Your task to perform on an android device: move a message to another label in the gmail app Image 0: 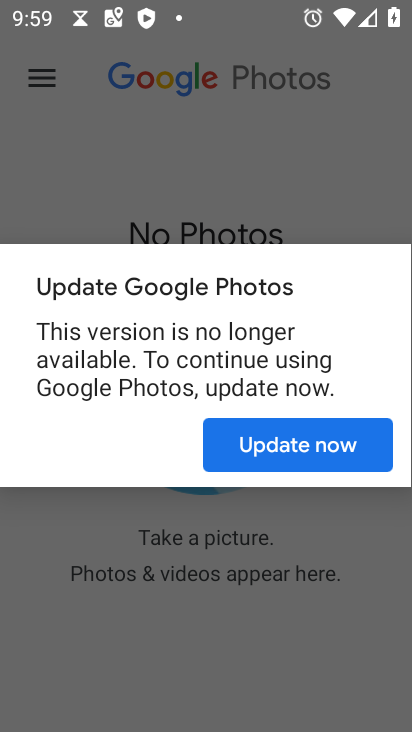
Step 0: press back button
Your task to perform on an android device: move a message to another label in the gmail app Image 1: 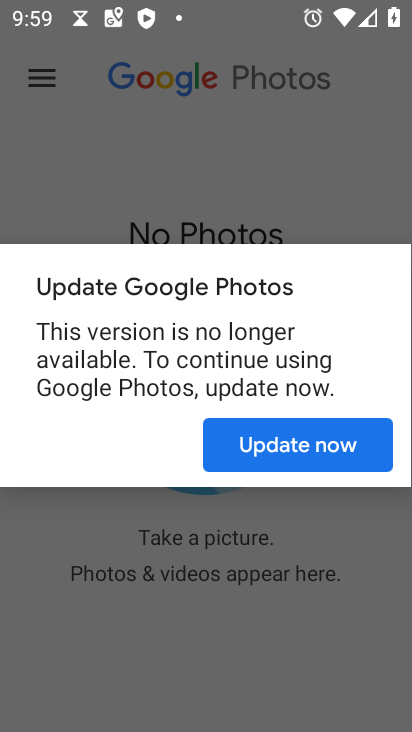
Step 1: press home button
Your task to perform on an android device: move a message to another label in the gmail app Image 2: 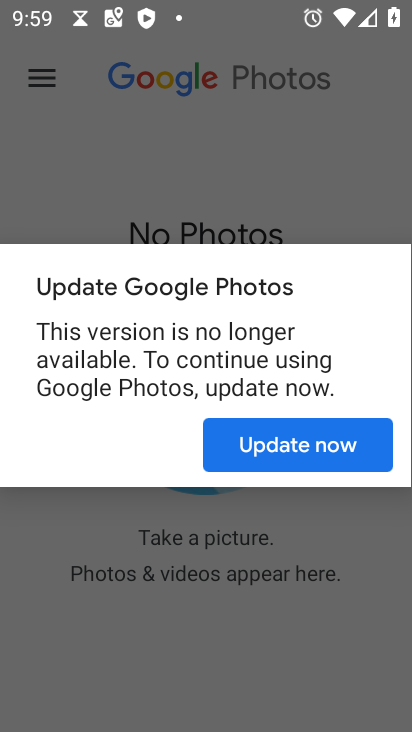
Step 2: press home button
Your task to perform on an android device: move a message to another label in the gmail app Image 3: 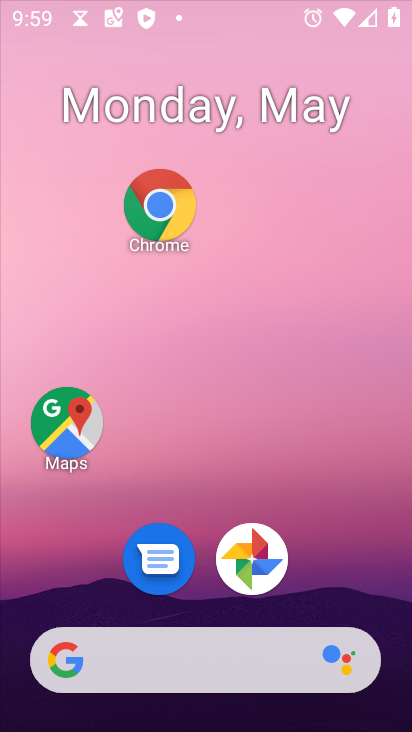
Step 3: click (88, 141)
Your task to perform on an android device: move a message to another label in the gmail app Image 4: 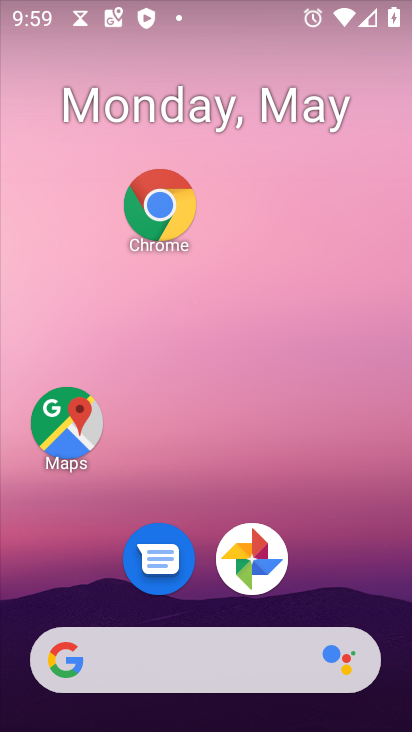
Step 4: click (88, 141)
Your task to perform on an android device: move a message to another label in the gmail app Image 5: 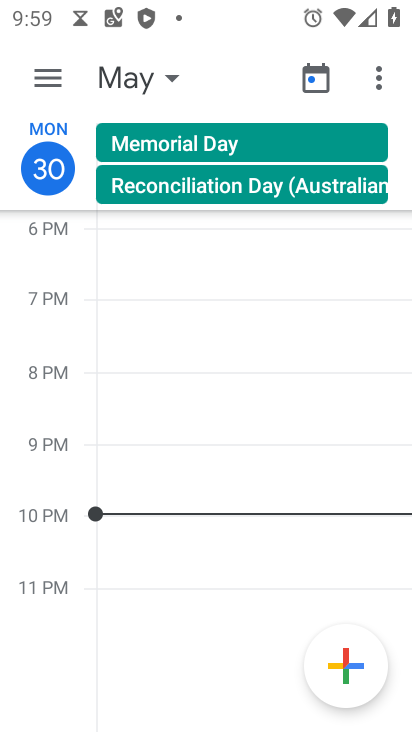
Step 5: drag from (260, 676) to (243, 60)
Your task to perform on an android device: move a message to another label in the gmail app Image 6: 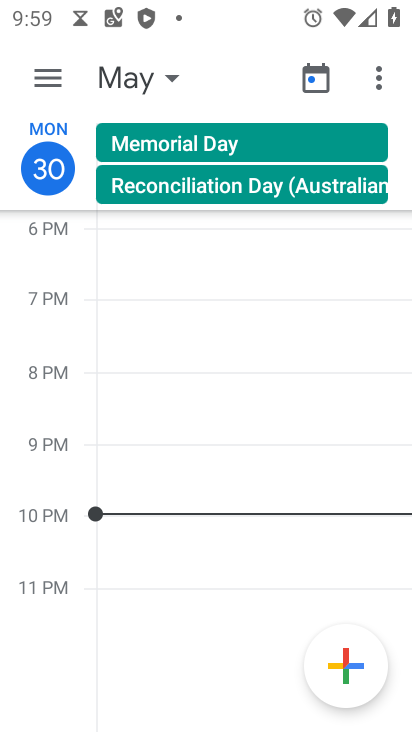
Step 6: press back button
Your task to perform on an android device: move a message to another label in the gmail app Image 7: 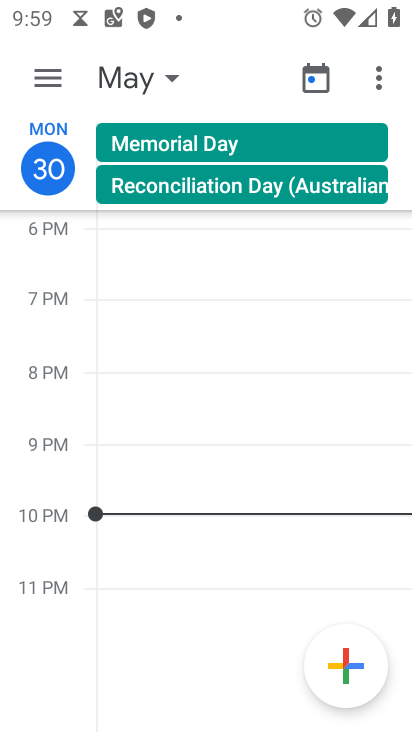
Step 7: press back button
Your task to perform on an android device: move a message to another label in the gmail app Image 8: 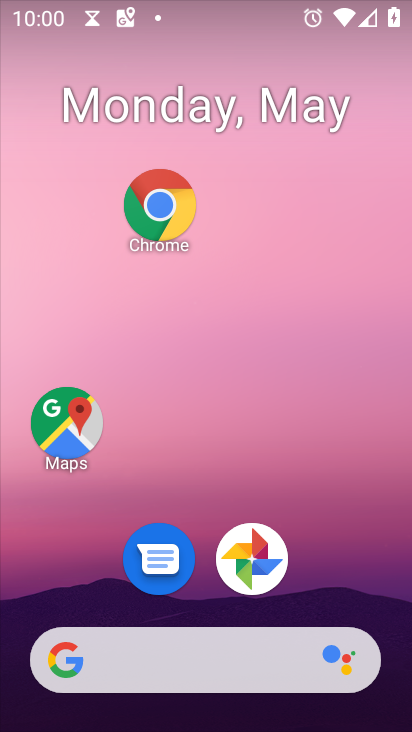
Step 8: drag from (285, 669) to (406, 686)
Your task to perform on an android device: move a message to another label in the gmail app Image 9: 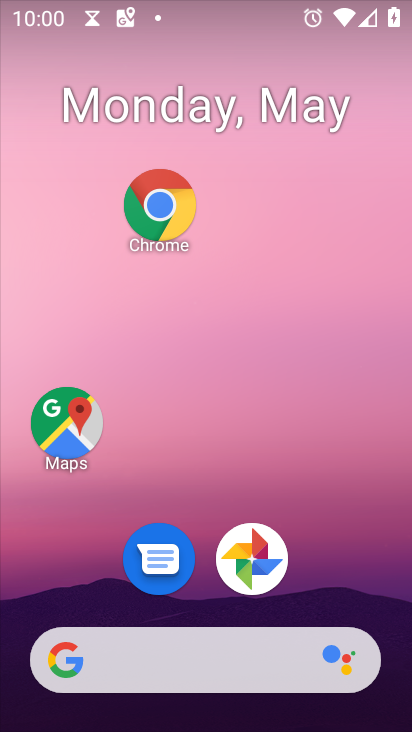
Step 9: drag from (248, 691) to (134, 139)
Your task to perform on an android device: move a message to another label in the gmail app Image 10: 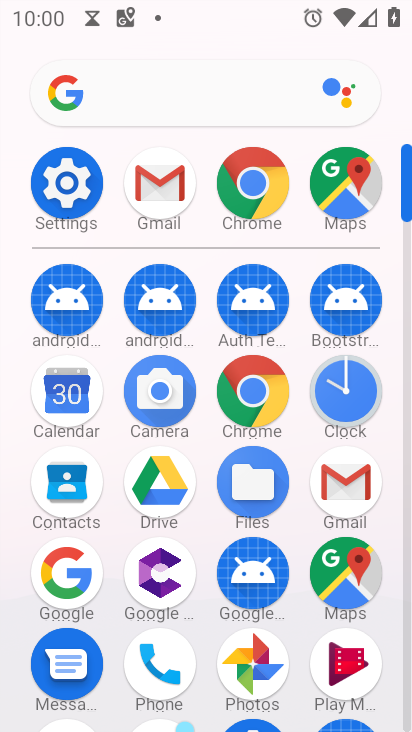
Step 10: drag from (248, 496) to (204, 81)
Your task to perform on an android device: move a message to another label in the gmail app Image 11: 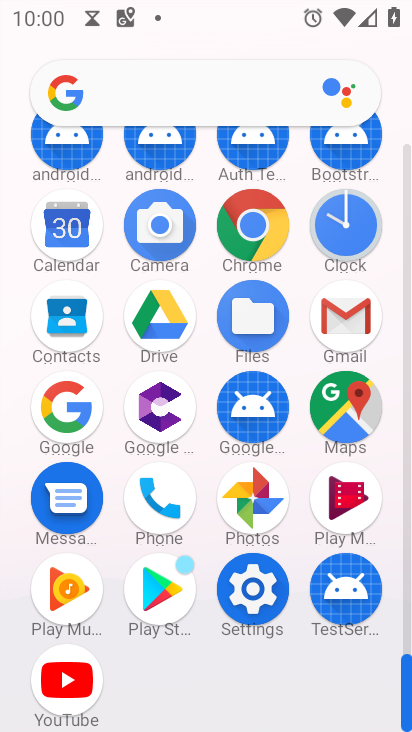
Step 11: click (341, 321)
Your task to perform on an android device: move a message to another label in the gmail app Image 12: 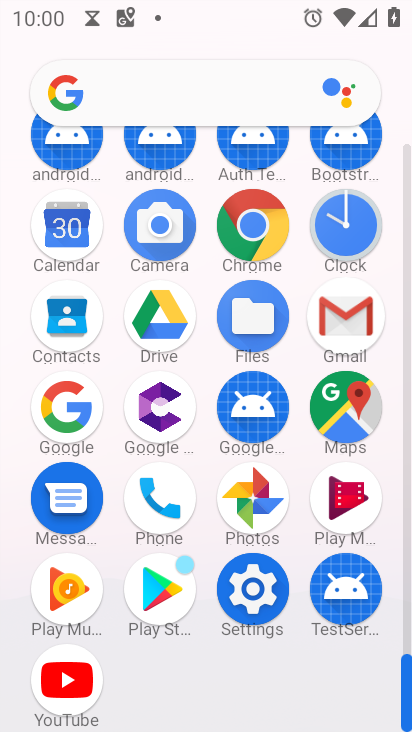
Step 12: click (341, 321)
Your task to perform on an android device: move a message to another label in the gmail app Image 13: 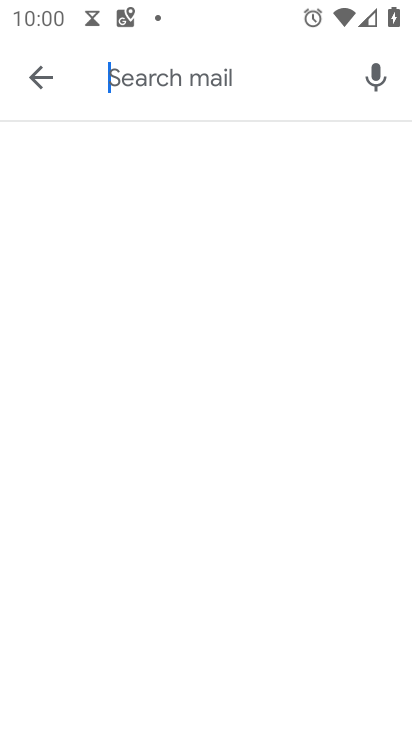
Step 13: click (34, 81)
Your task to perform on an android device: move a message to another label in the gmail app Image 14: 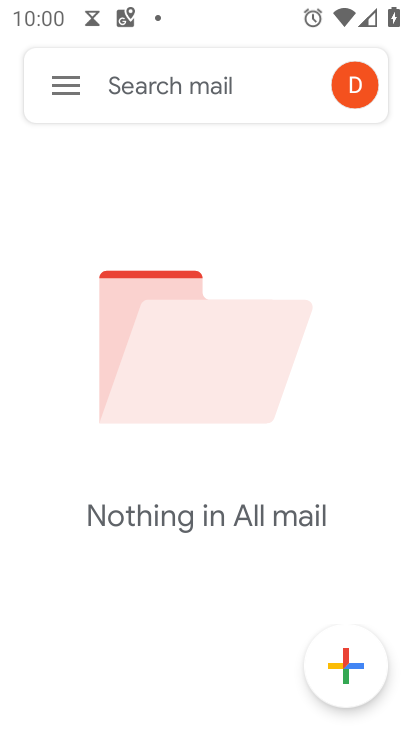
Step 14: press back button
Your task to perform on an android device: move a message to another label in the gmail app Image 15: 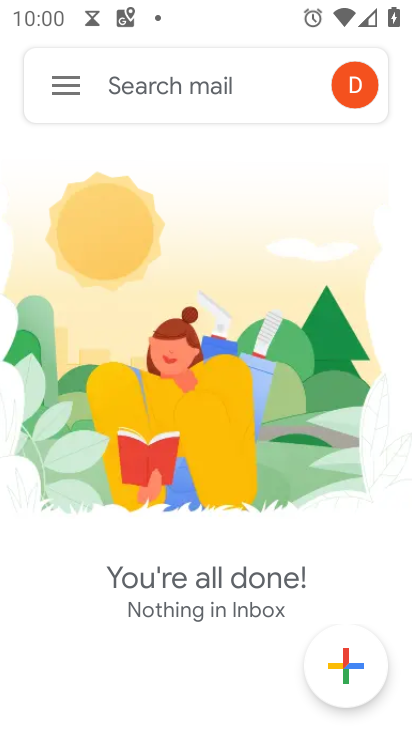
Step 15: click (74, 100)
Your task to perform on an android device: move a message to another label in the gmail app Image 16: 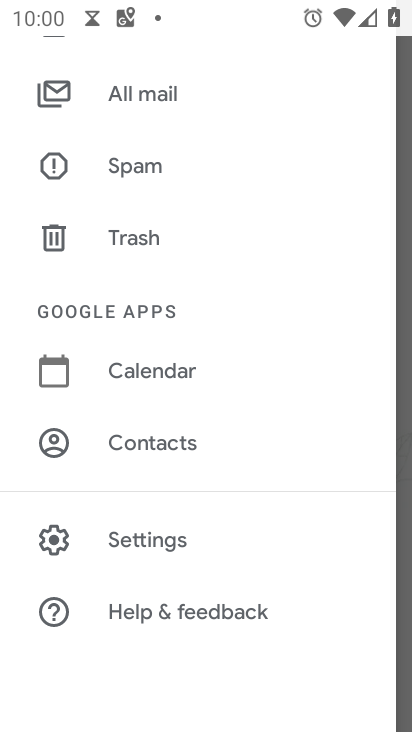
Step 16: click (151, 102)
Your task to perform on an android device: move a message to another label in the gmail app Image 17: 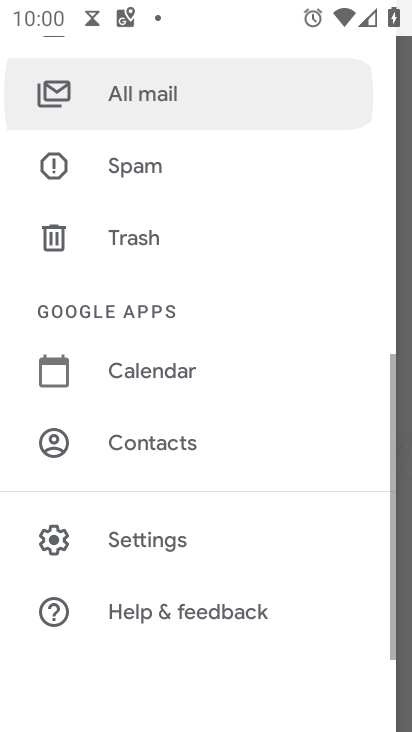
Step 17: click (145, 90)
Your task to perform on an android device: move a message to another label in the gmail app Image 18: 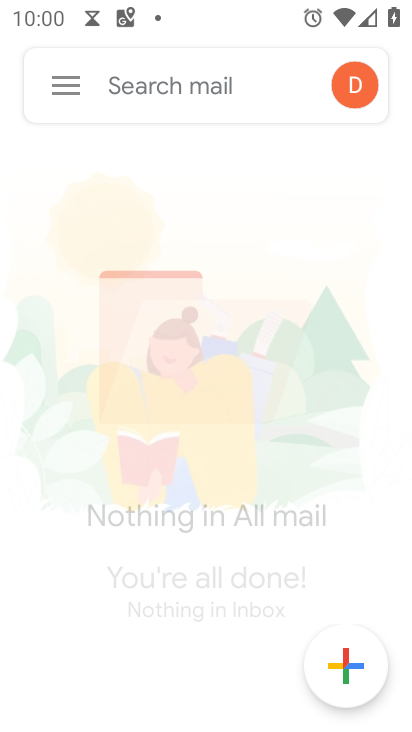
Step 18: click (144, 88)
Your task to perform on an android device: move a message to another label in the gmail app Image 19: 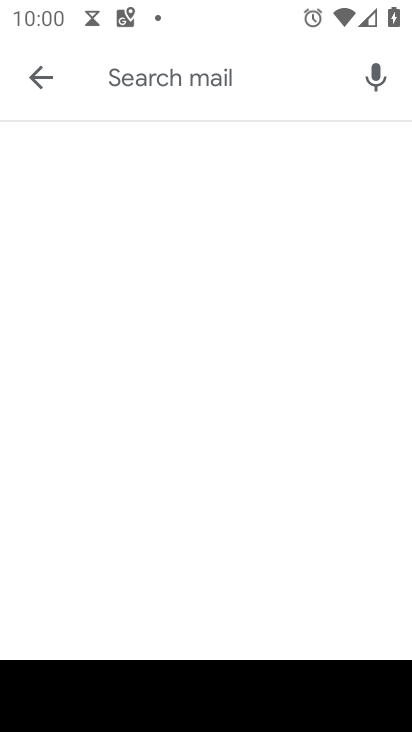
Step 19: click (34, 77)
Your task to perform on an android device: move a message to another label in the gmail app Image 20: 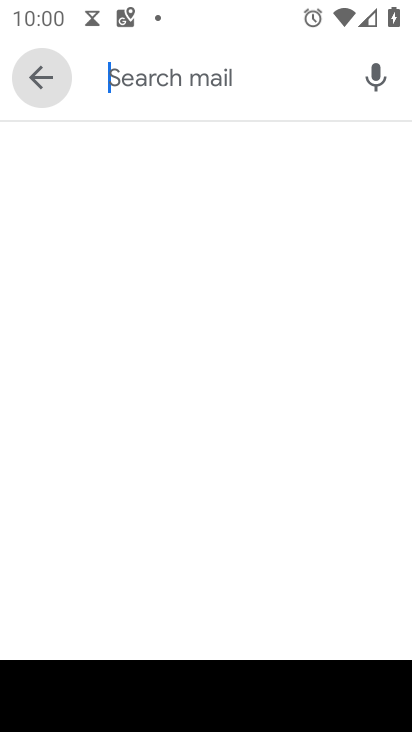
Step 20: click (34, 77)
Your task to perform on an android device: move a message to another label in the gmail app Image 21: 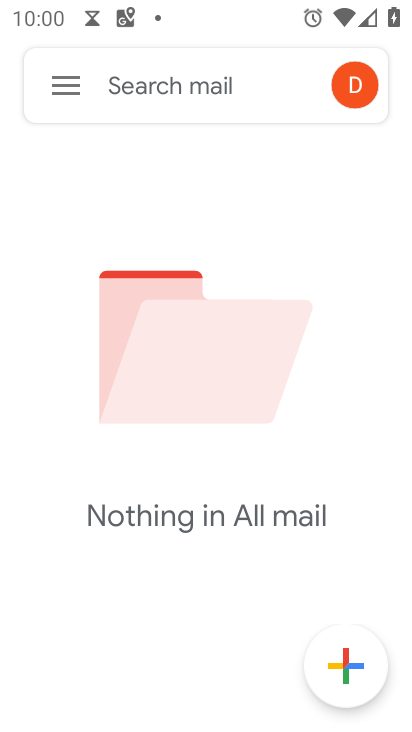
Step 21: drag from (68, 85) to (115, 265)
Your task to perform on an android device: move a message to another label in the gmail app Image 22: 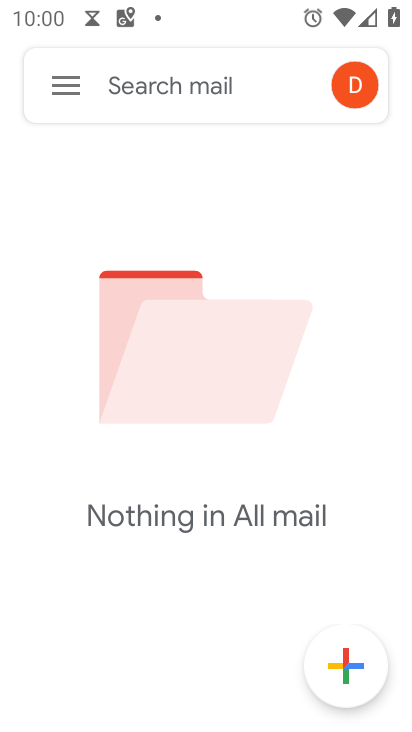
Step 22: click (66, 90)
Your task to perform on an android device: move a message to another label in the gmail app Image 23: 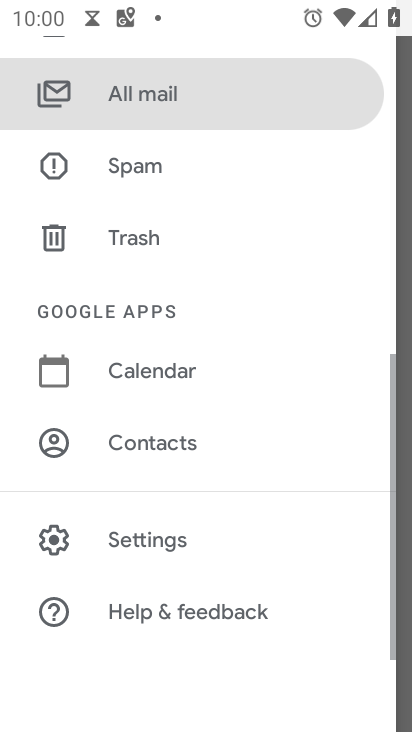
Step 23: task complete